Your task to perform on an android device: Open the calendar and show me this week's events? Image 0: 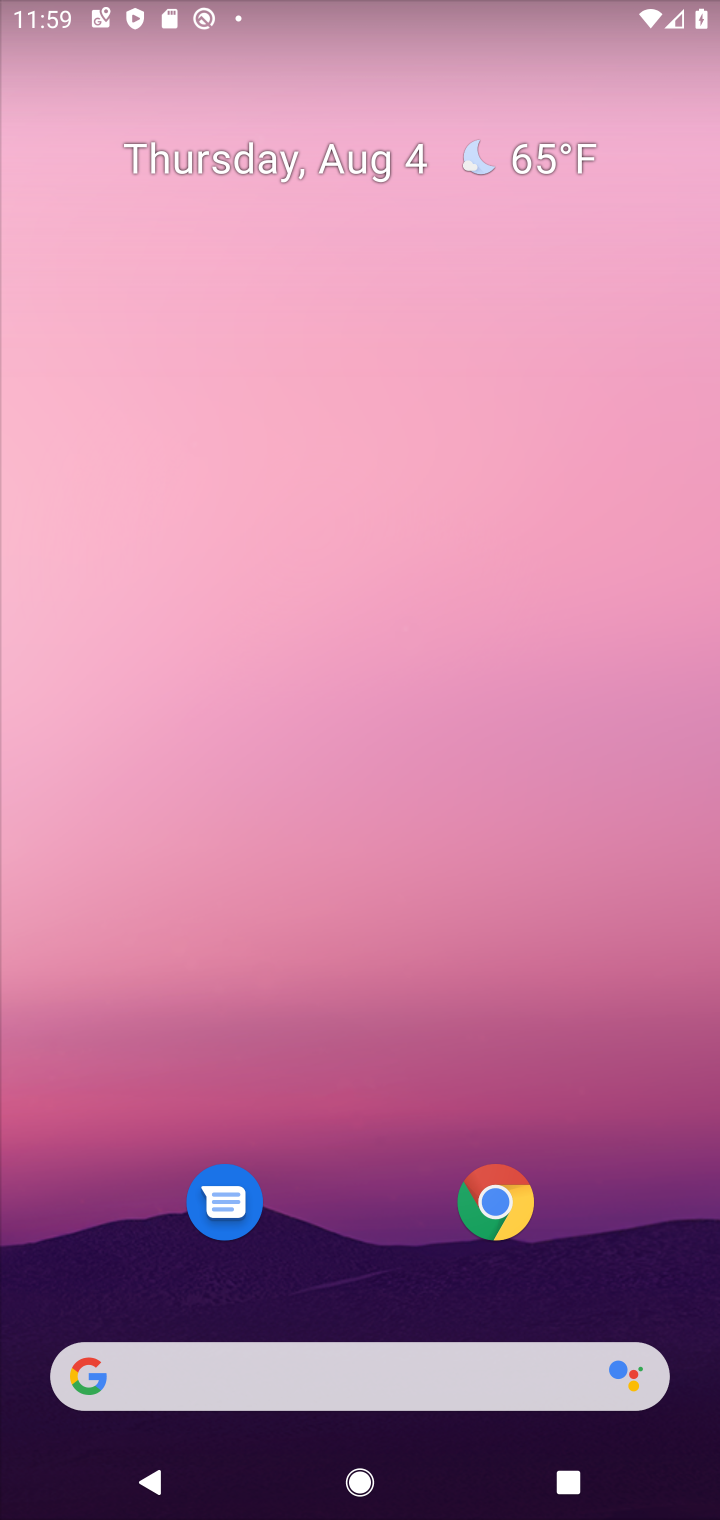
Step 0: drag from (297, 1266) to (510, 134)
Your task to perform on an android device: Open the calendar and show me this week's events? Image 1: 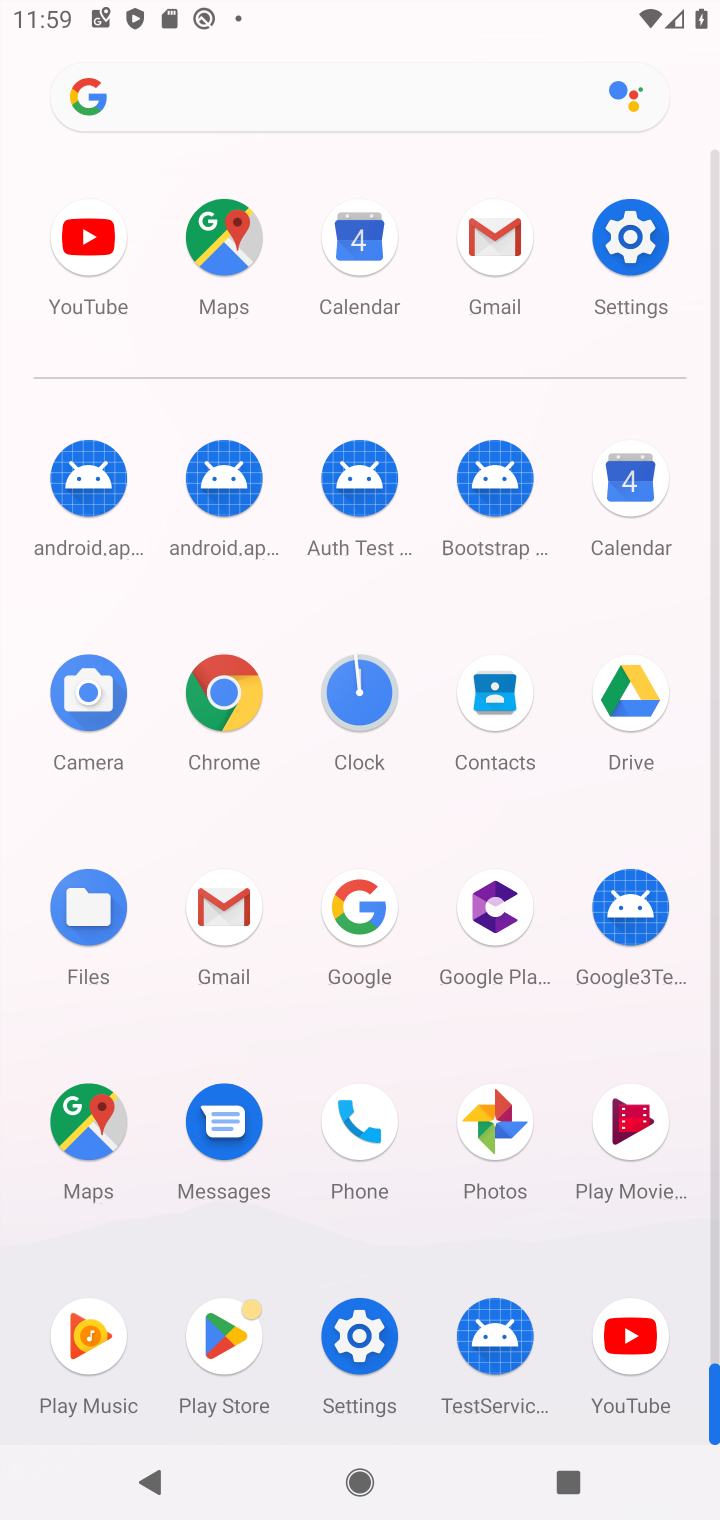
Step 1: click (623, 469)
Your task to perform on an android device: Open the calendar and show me this week's events? Image 2: 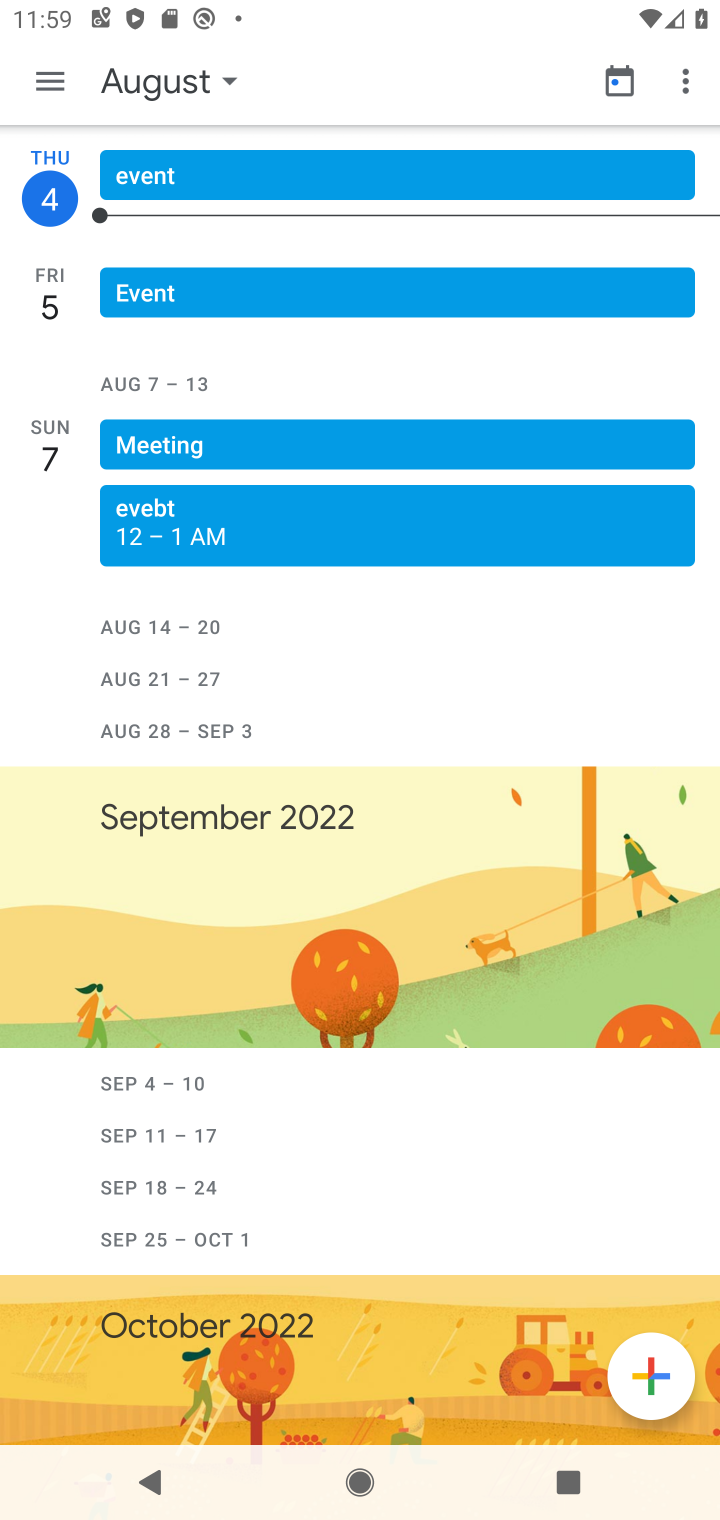
Step 2: click (218, 75)
Your task to perform on an android device: Open the calendar and show me this week's events? Image 3: 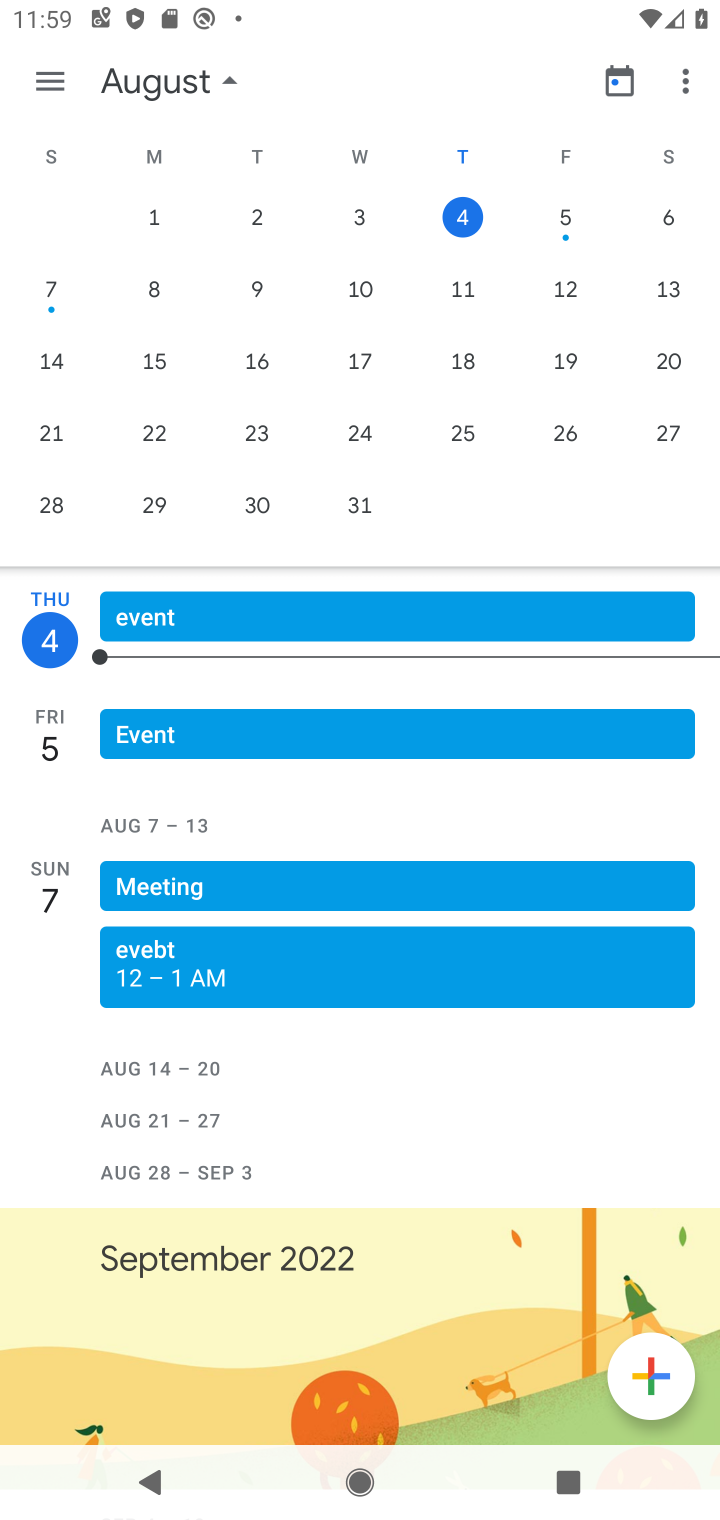
Step 3: task complete